Your task to perform on an android device: change timer sound Image 0: 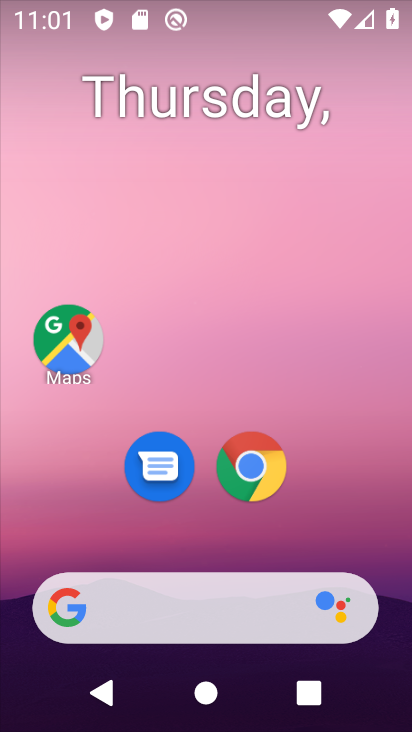
Step 0: drag from (367, 304) to (393, 124)
Your task to perform on an android device: change timer sound Image 1: 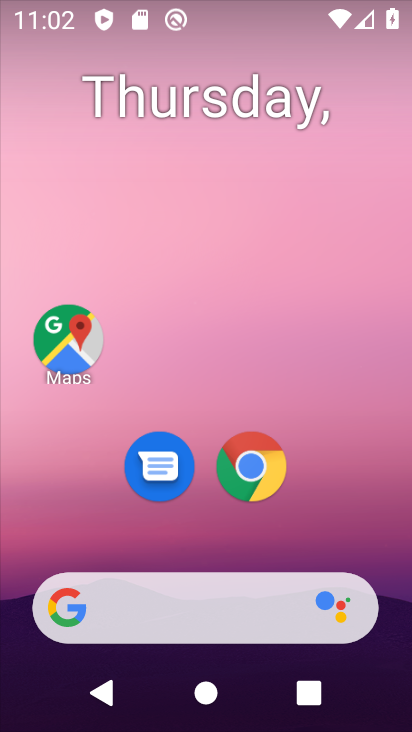
Step 1: drag from (332, 538) to (402, 95)
Your task to perform on an android device: change timer sound Image 2: 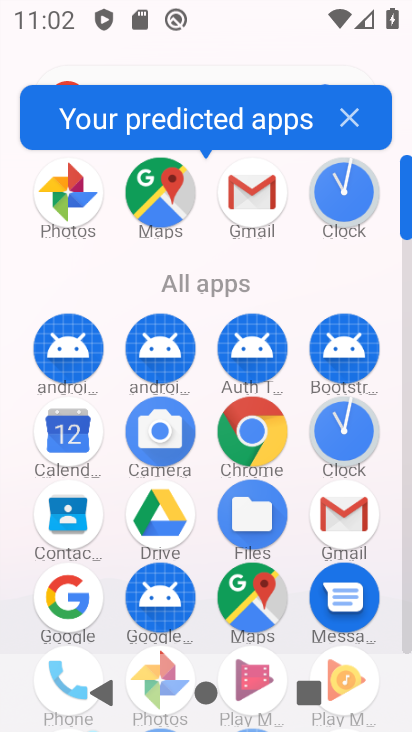
Step 2: click (333, 451)
Your task to perform on an android device: change timer sound Image 3: 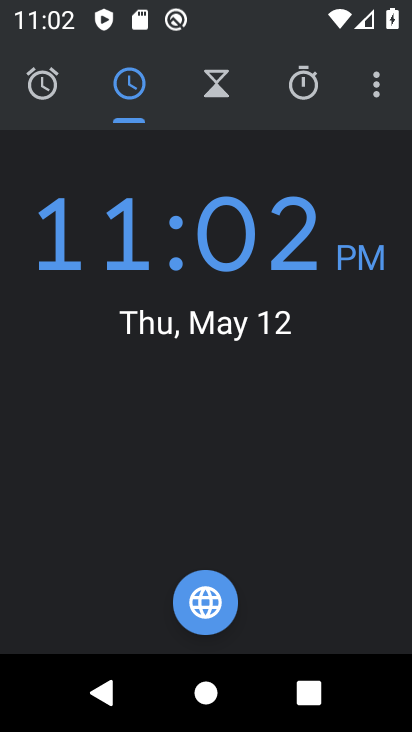
Step 3: click (381, 94)
Your task to perform on an android device: change timer sound Image 4: 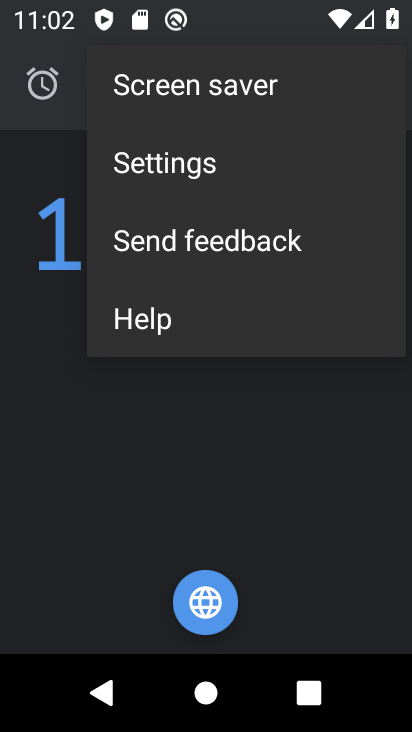
Step 4: click (228, 181)
Your task to perform on an android device: change timer sound Image 5: 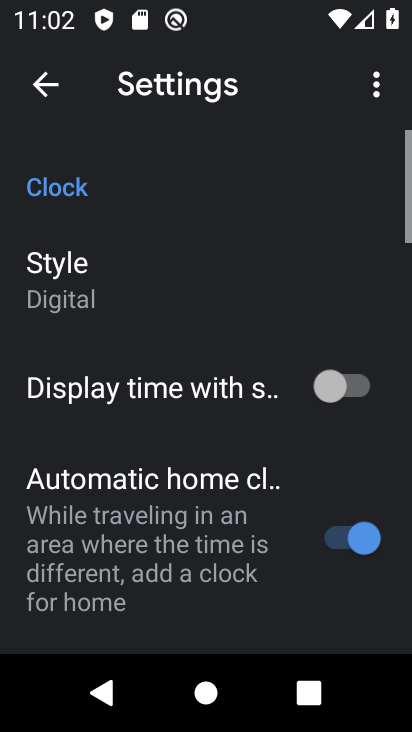
Step 5: drag from (218, 494) to (224, 165)
Your task to perform on an android device: change timer sound Image 6: 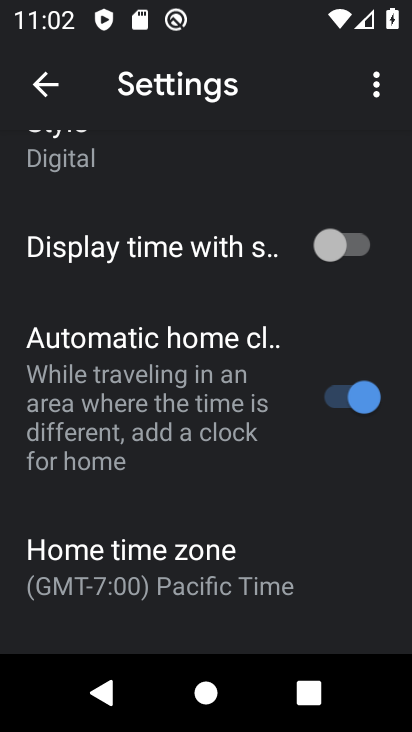
Step 6: drag from (223, 554) to (236, 183)
Your task to perform on an android device: change timer sound Image 7: 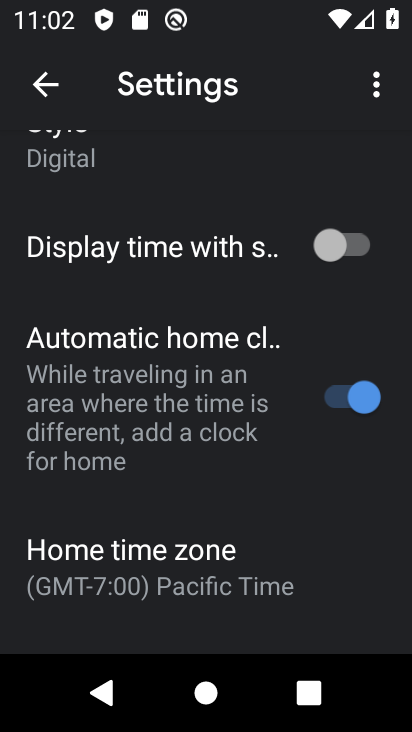
Step 7: drag from (201, 235) to (248, 163)
Your task to perform on an android device: change timer sound Image 8: 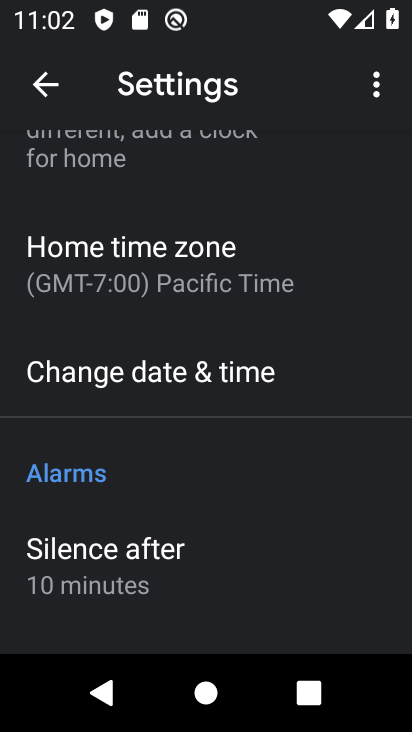
Step 8: drag from (203, 515) to (271, 167)
Your task to perform on an android device: change timer sound Image 9: 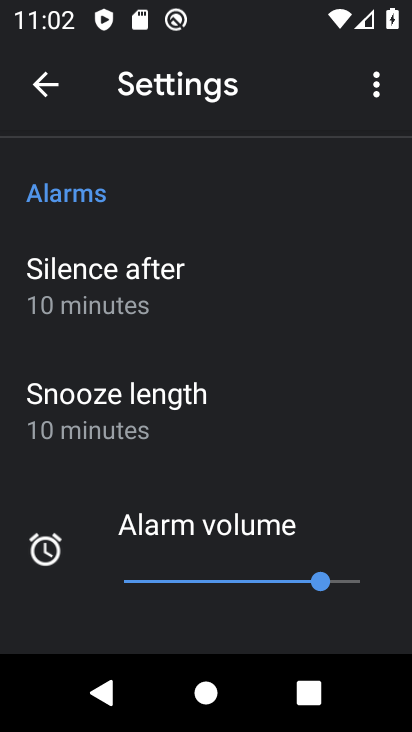
Step 9: drag from (246, 530) to (286, 203)
Your task to perform on an android device: change timer sound Image 10: 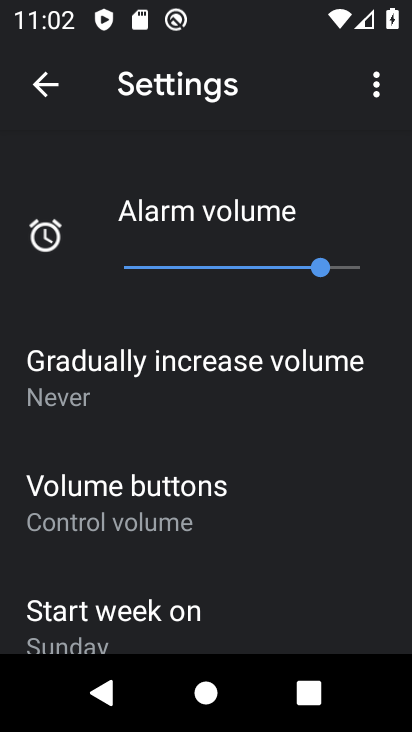
Step 10: drag from (276, 581) to (333, 215)
Your task to perform on an android device: change timer sound Image 11: 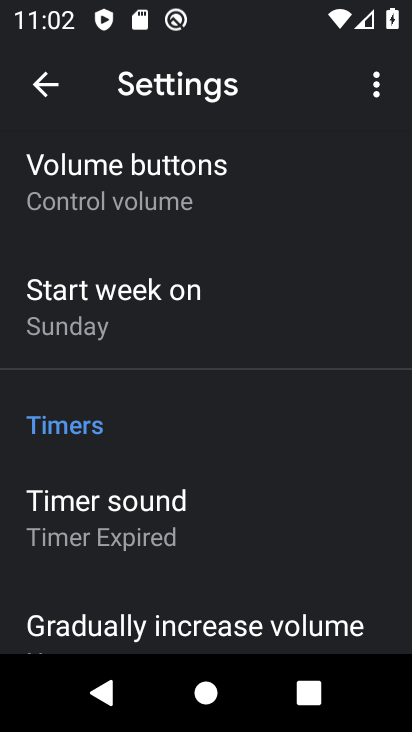
Step 11: click (180, 534)
Your task to perform on an android device: change timer sound Image 12: 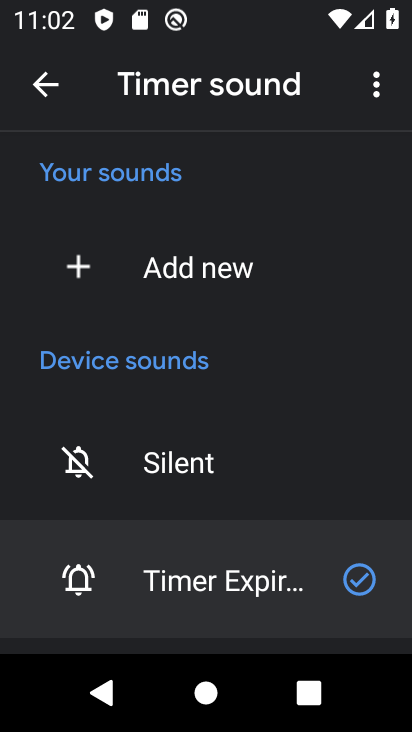
Step 12: drag from (212, 596) to (269, 262)
Your task to perform on an android device: change timer sound Image 13: 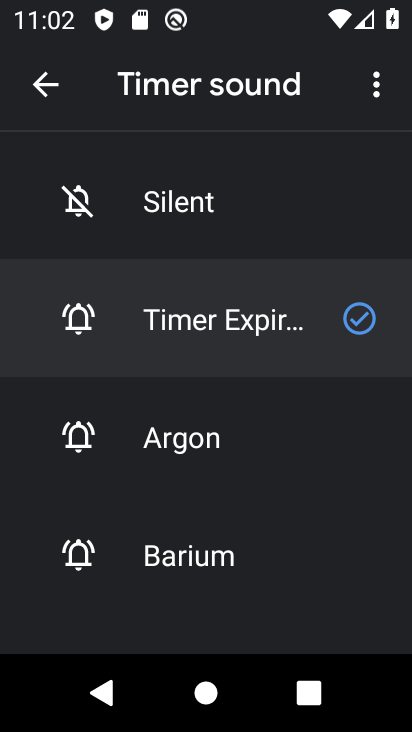
Step 13: click (211, 448)
Your task to perform on an android device: change timer sound Image 14: 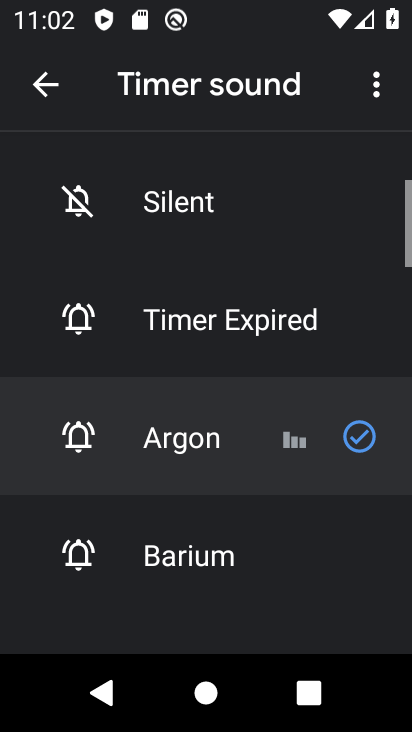
Step 14: task complete